Your task to perform on an android device: toggle priority inbox in the gmail app Image 0: 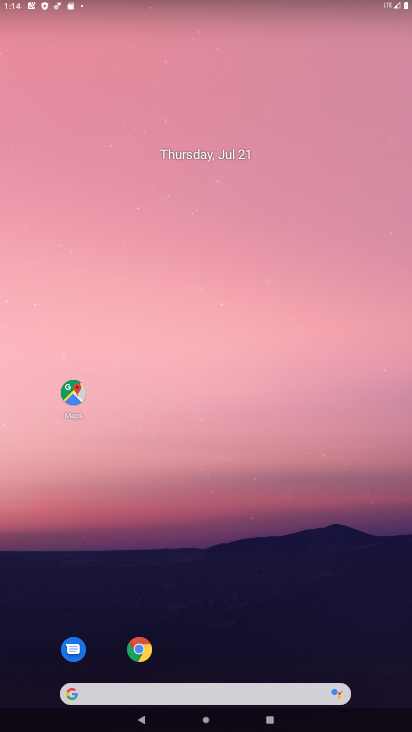
Step 0: drag from (220, 728) to (209, 200)
Your task to perform on an android device: toggle priority inbox in the gmail app Image 1: 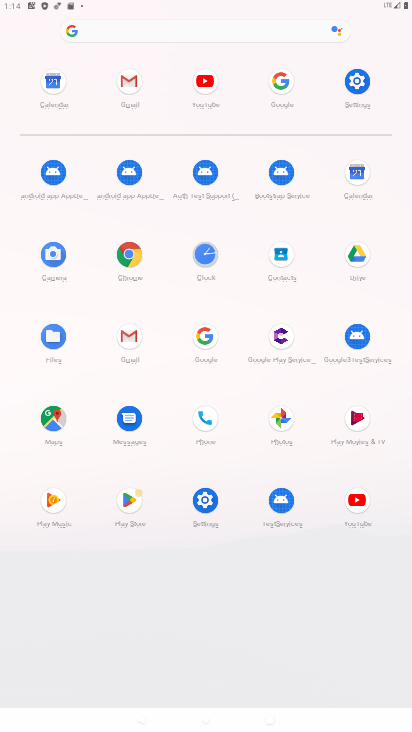
Step 1: click (128, 336)
Your task to perform on an android device: toggle priority inbox in the gmail app Image 2: 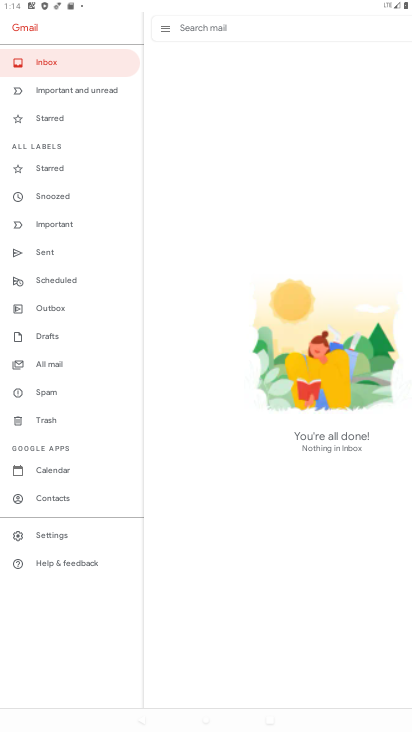
Step 2: click (52, 533)
Your task to perform on an android device: toggle priority inbox in the gmail app Image 3: 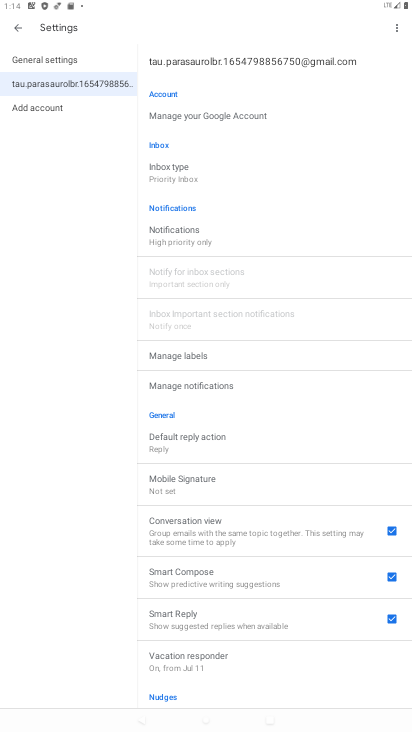
Step 3: click (194, 175)
Your task to perform on an android device: toggle priority inbox in the gmail app Image 4: 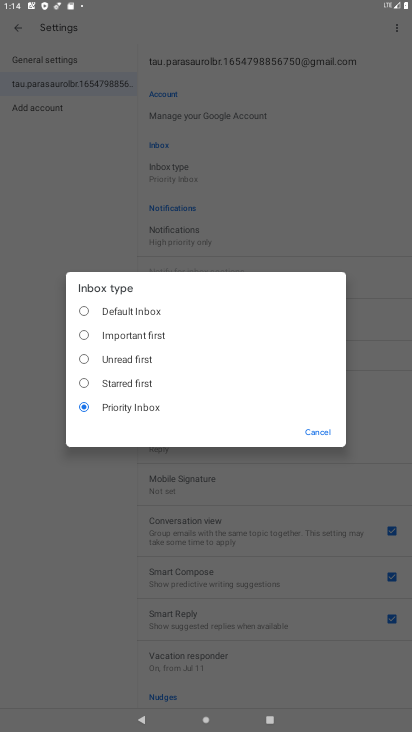
Step 4: click (85, 310)
Your task to perform on an android device: toggle priority inbox in the gmail app Image 5: 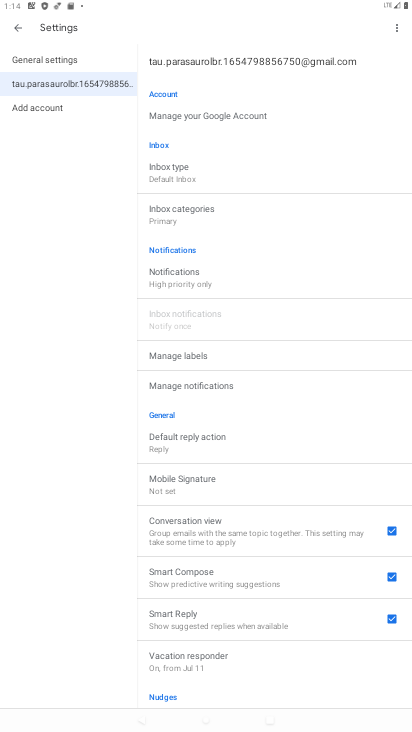
Step 5: task complete